Your task to perform on an android device: change the clock display to analog Image 0: 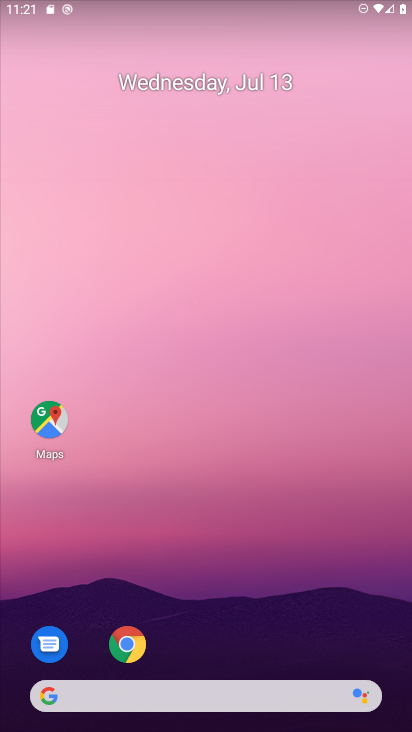
Step 0: drag from (248, 574) to (213, 55)
Your task to perform on an android device: change the clock display to analog Image 1: 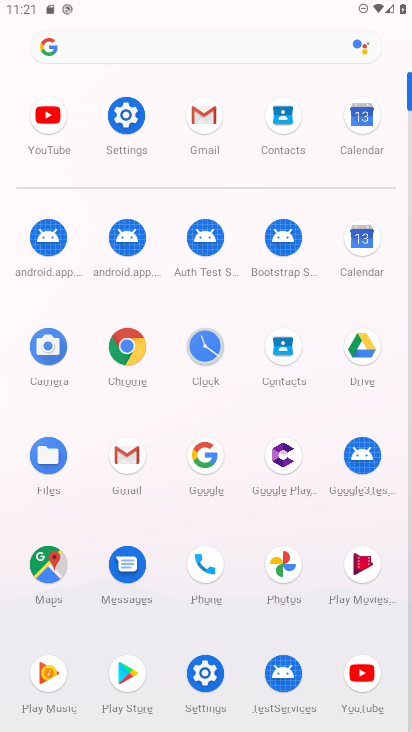
Step 1: click (207, 345)
Your task to perform on an android device: change the clock display to analog Image 2: 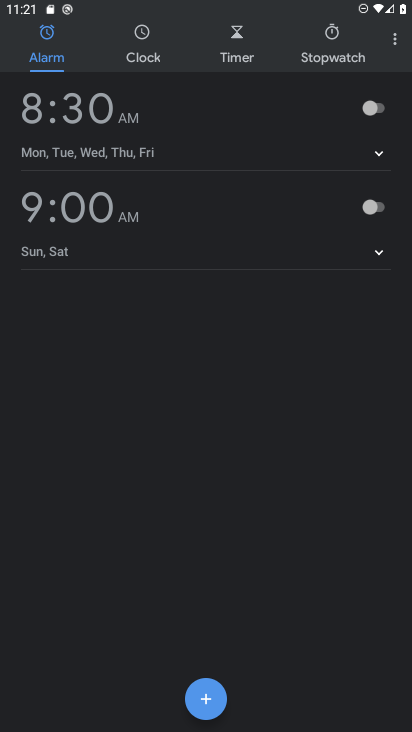
Step 2: click (395, 46)
Your task to perform on an android device: change the clock display to analog Image 3: 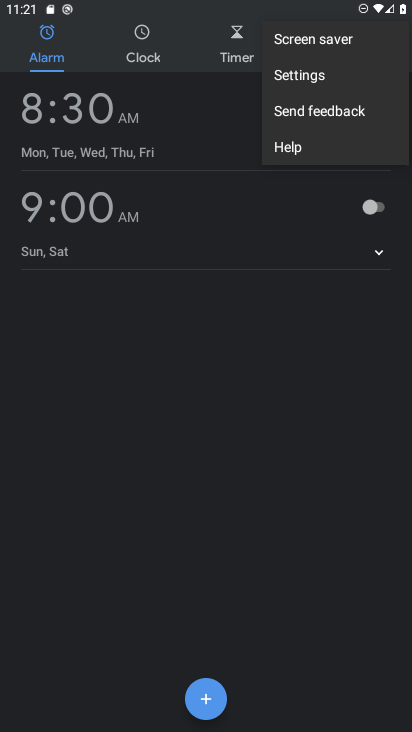
Step 3: click (309, 75)
Your task to perform on an android device: change the clock display to analog Image 4: 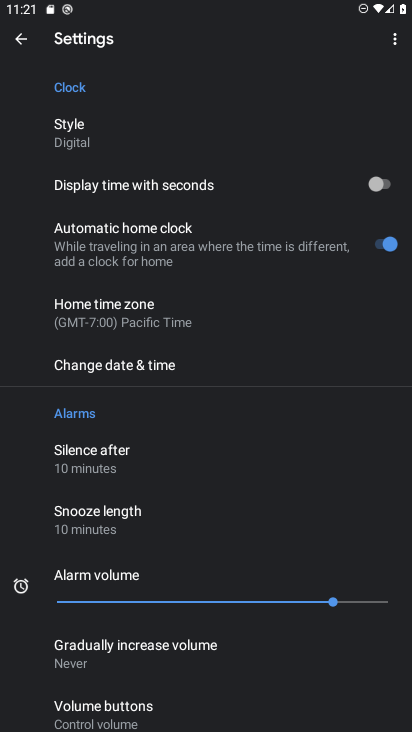
Step 4: click (63, 126)
Your task to perform on an android device: change the clock display to analog Image 5: 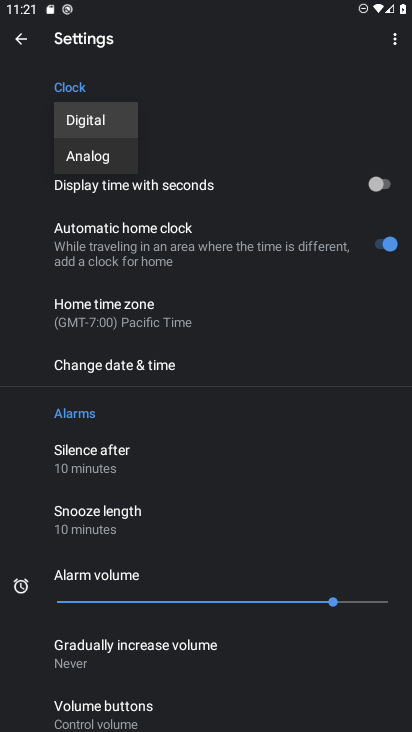
Step 5: click (90, 155)
Your task to perform on an android device: change the clock display to analog Image 6: 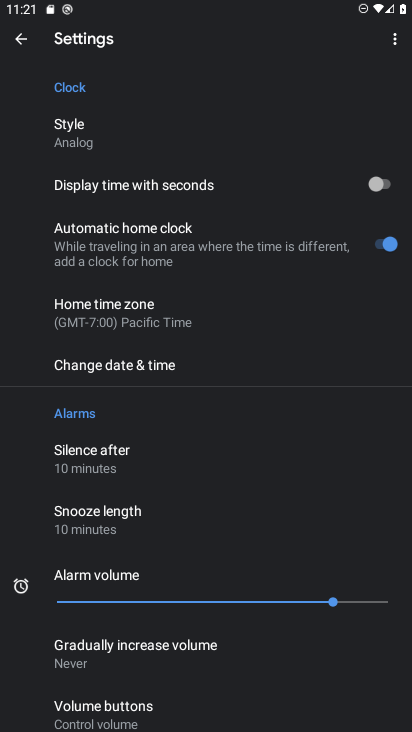
Step 6: task complete